Your task to perform on an android device: turn on bluetooth scan Image 0: 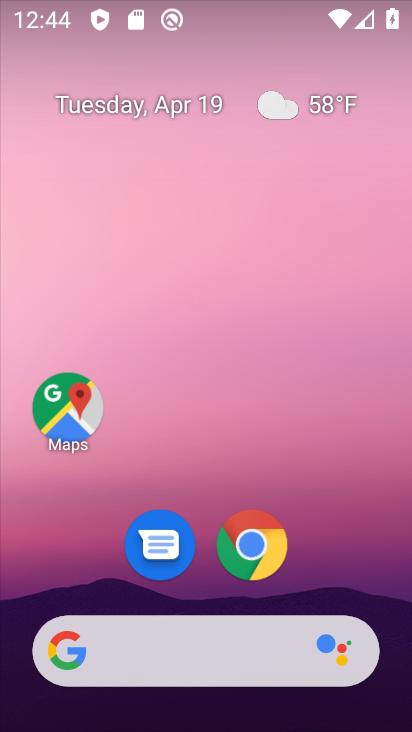
Step 0: drag from (238, 611) to (296, 15)
Your task to perform on an android device: turn on bluetooth scan Image 1: 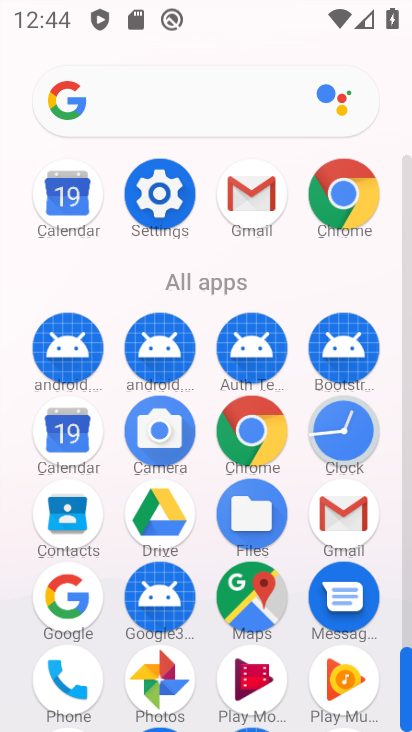
Step 1: click (160, 192)
Your task to perform on an android device: turn on bluetooth scan Image 2: 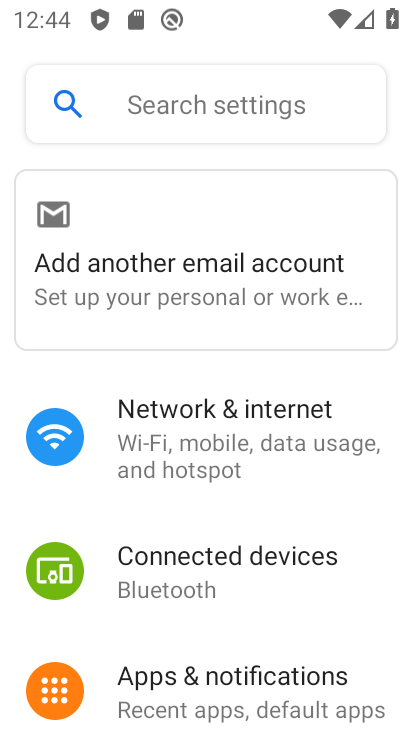
Step 2: click (176, 576)
Your task to perform on an android device: turn on bluetooth scan Image 3: 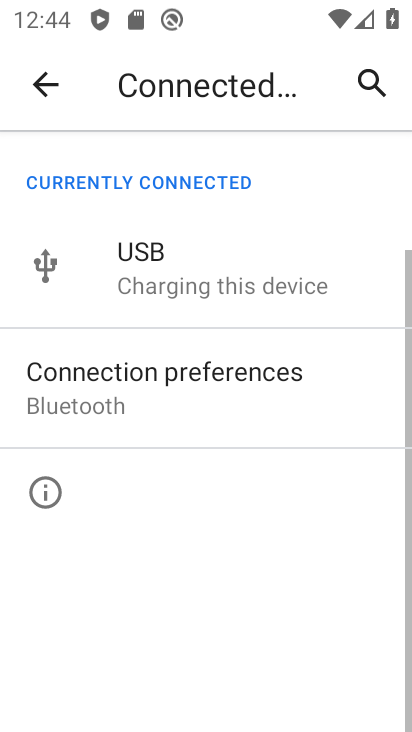
Step 3: click (123, 390)
Your task to perform on an android device: turn on bluetooth scan Image 4: 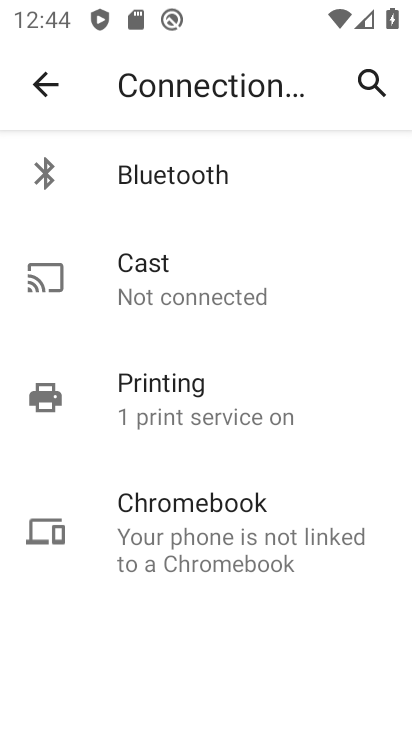
Step 4: click (190, 187)
Your task to perform on an android device: turn on bluetooth scan Image 5: 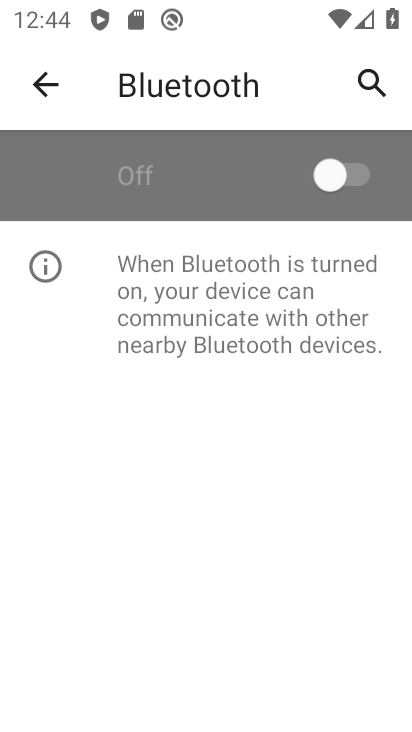
Step 5: click (334, 179)
Your task to perform on an android device: turn on bluetooth scan Image 6: 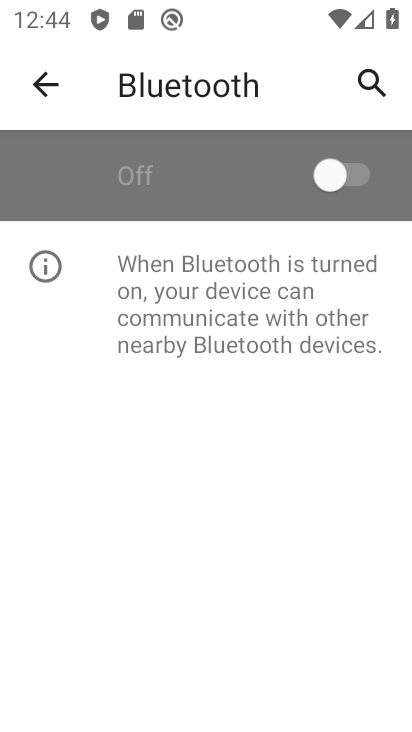
Step 6: task complete